Your task to perform on an android device: Clear the shopping cart on walmart.com. Search for usb-b on walmart.com, select the first entry, add it to the cart, then select checkout. Image 0: 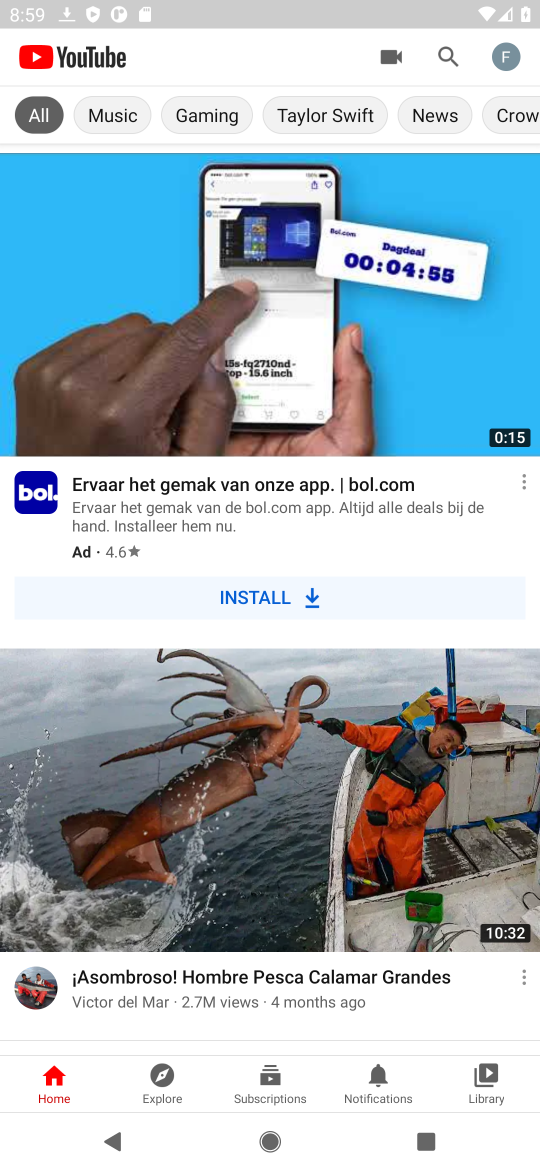
Step 0: press home button
Your task to perform on an android device: Clear the shopping cart on walmart.com. Search for usb-b on walmart.com, select the first entry, add it to the cart, then select checkout. Image 1: 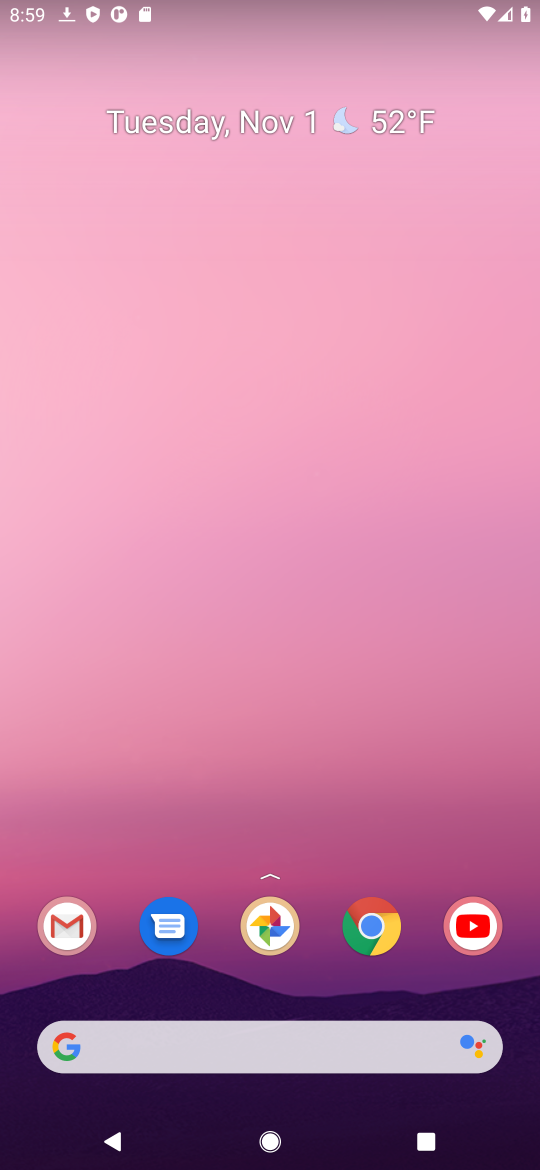
Step 1: click (356, 950)
Your task to perform on an android device: Clear the shopping cart on walmart.com. Search for usb-b on walmart.com, select the first entry, add it to the cart, then select checkout. Image 2: 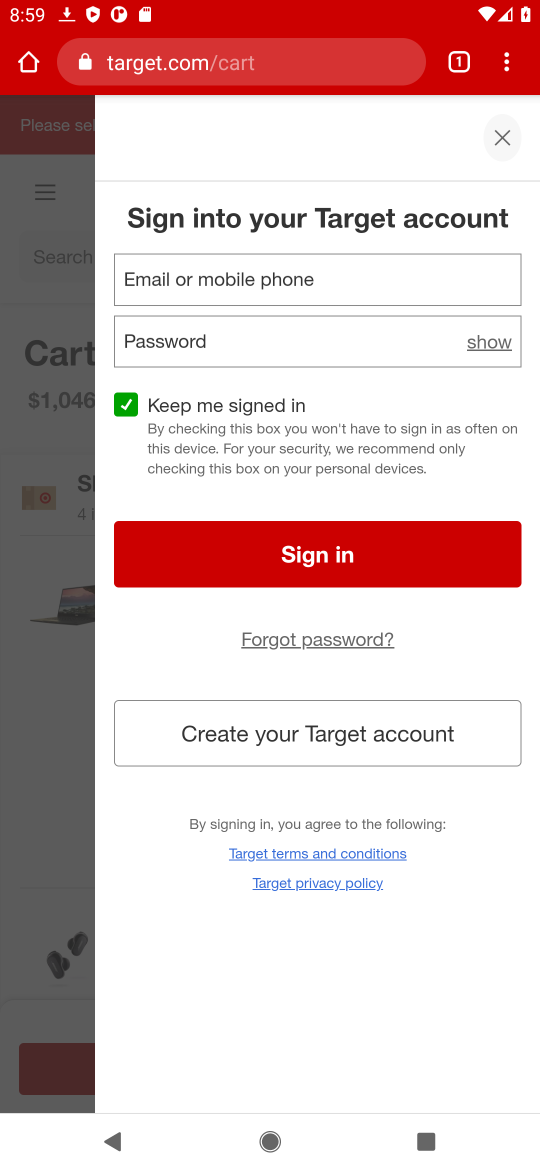
Step 2: click (209, 65)
Your task to perform on an android device: Clear the shopping cart on walmart.com. Search for usb-b on walmart.com, select the first entry, add it to the cart, then select checkout. Image 3: 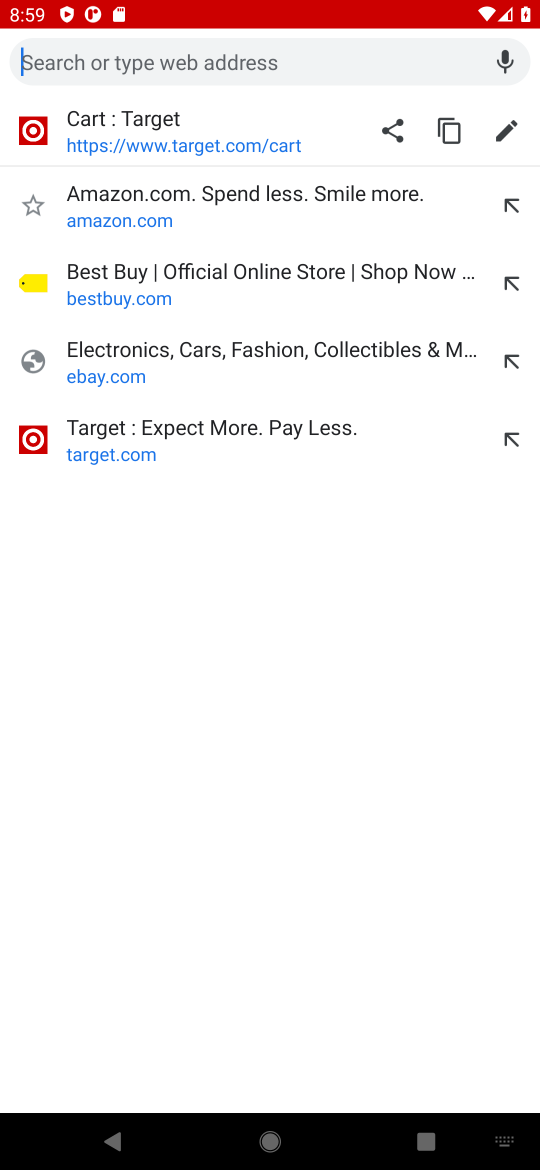
Step 3: type "walmart.com"
Your task to perform on an android device: Clear the shopping cart on walmart.com. Search for usb-b on walmart.com, select the first entry, add it to the cart, then select checkout. Image 4: 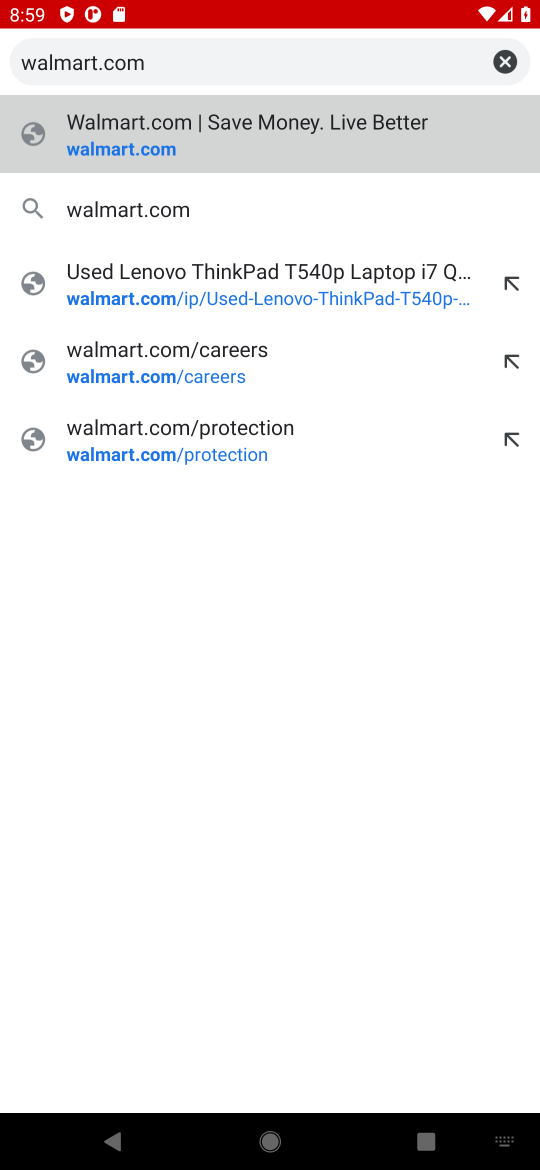
Step 4: click (198, 131)
Your task to perform on an android device: Clear the shopping cart on walmart.com. Search for usb-b on walmart.com, select the first entry, add it to the cart, then select checkout. Image 5: 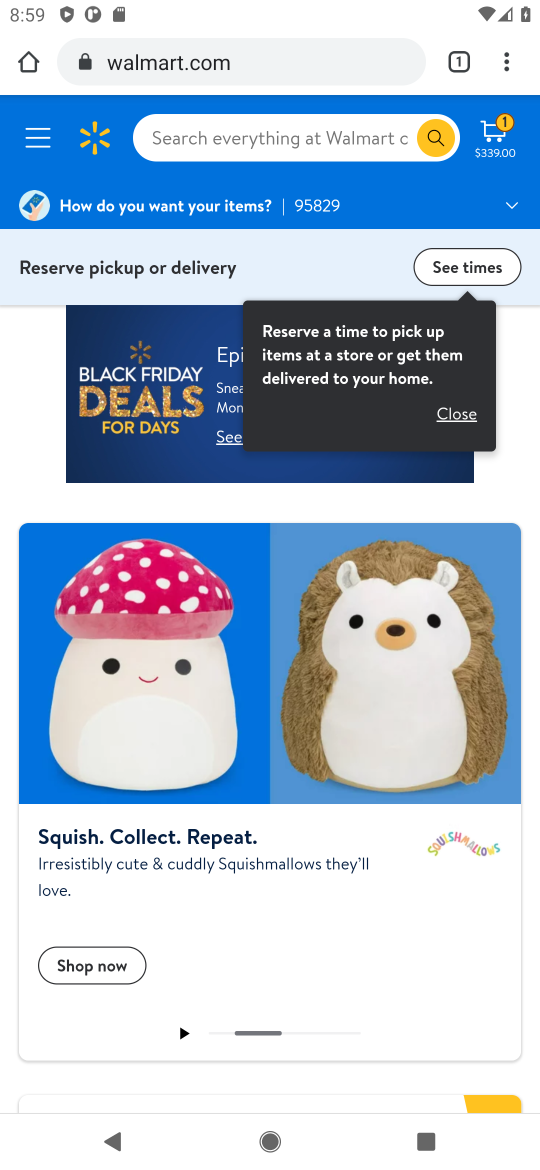
Step 5: click (202, 132)
Your task to perform on an android device: Clear the shopping cart on walmart.com. Search for usb-b on walmart.com, select the first entry, add it to the cart, then select checkout. Image 6: 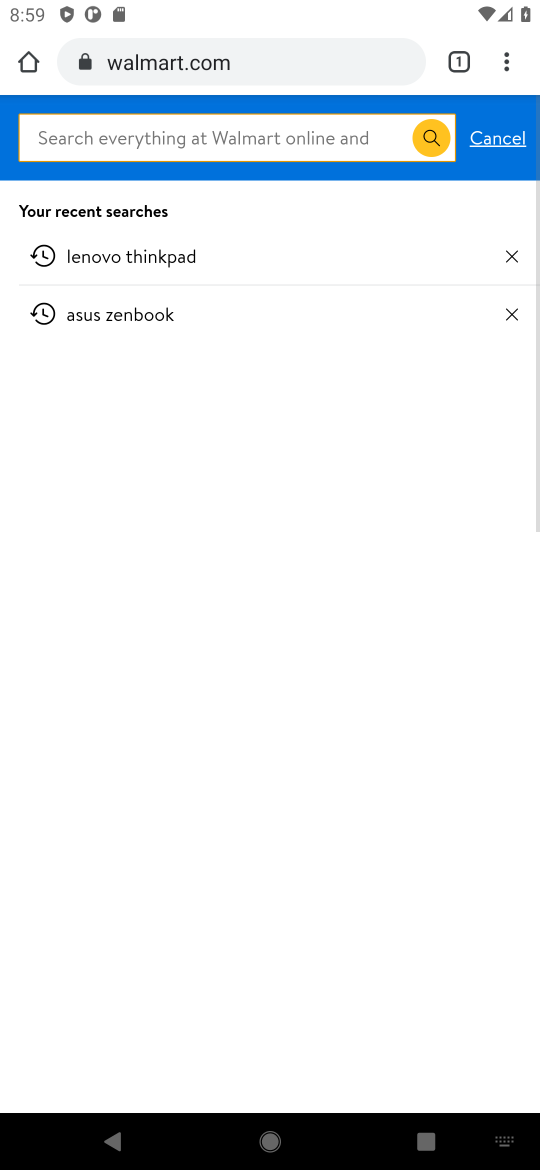
Step 6: click (483, 132)
Your task to perform on an android device: Clear the shopping cart on walmart.com. Search for usb-b on walmart.com, select the first entry, add it to the cart, then select checkout. Image 7: 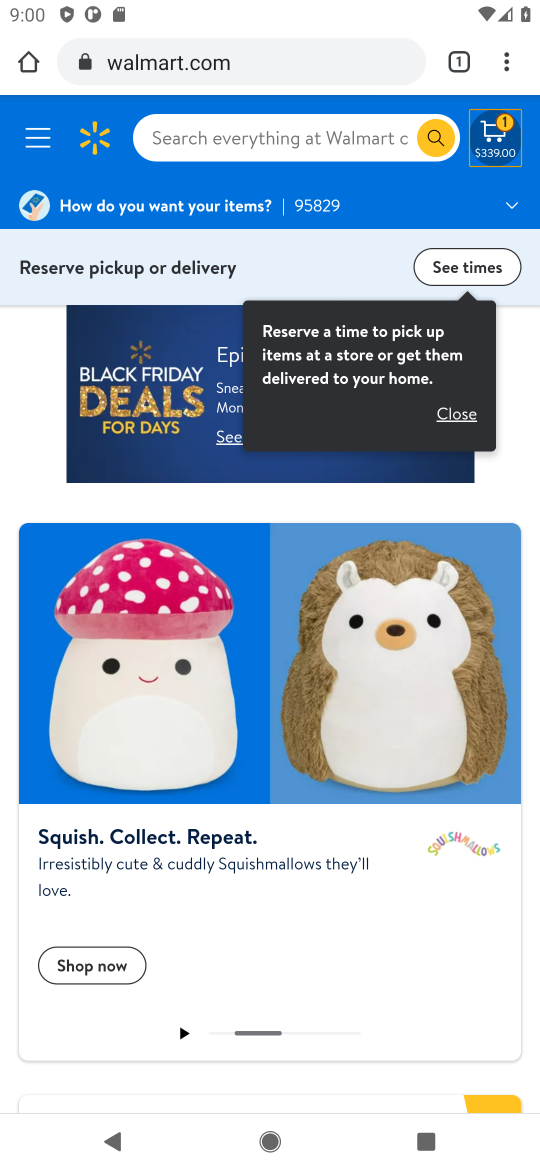
Step 7: type "usb - b"
Your task to perform on an android device: Clear the shopping cart on walmart.com. Search for usb-b on walmart.com, select the first entry, add it to the cart, then select checkout. Image 8: 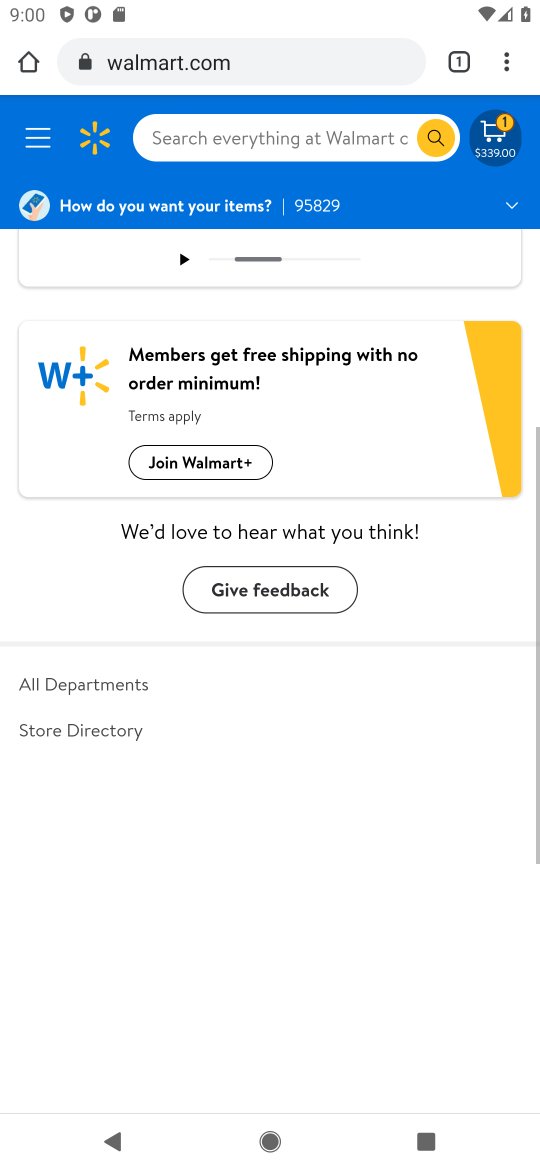
Step 8: type ""
Your task to perform on an android device: Clear the shopping cart on walmart.com. Search for usb-b on walmart.com, select the first entry, add it to the cart, then select checkout. Image 9: 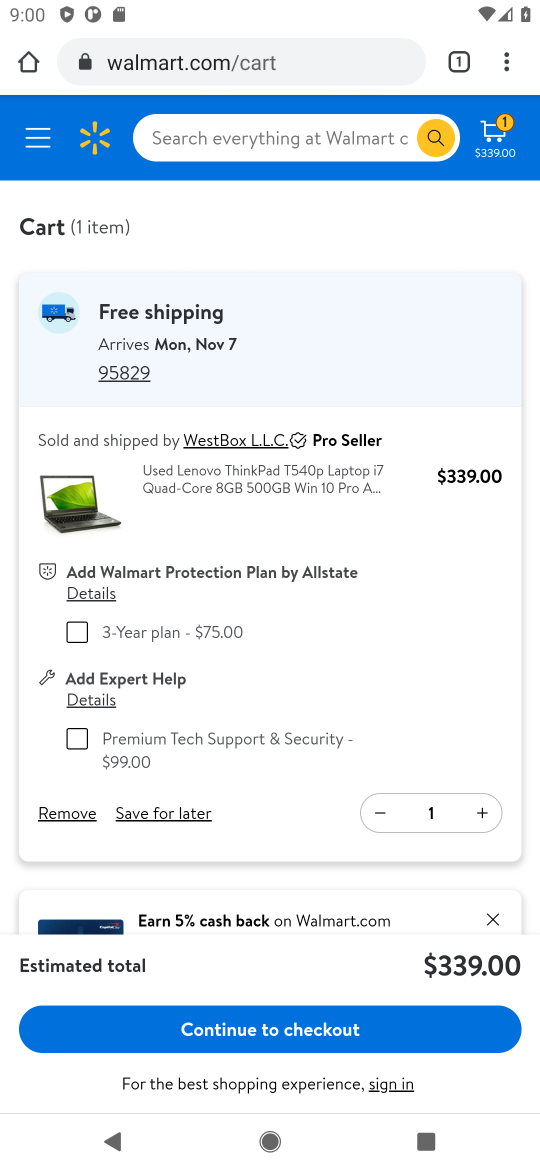
Step 9: click (259, 129)
Your task to perform on an android device: Clear the shopping cart on walmart.com. Search for usb-b on walmart.com, select the first entry, add it to the cart, then select checkout. Image 10: 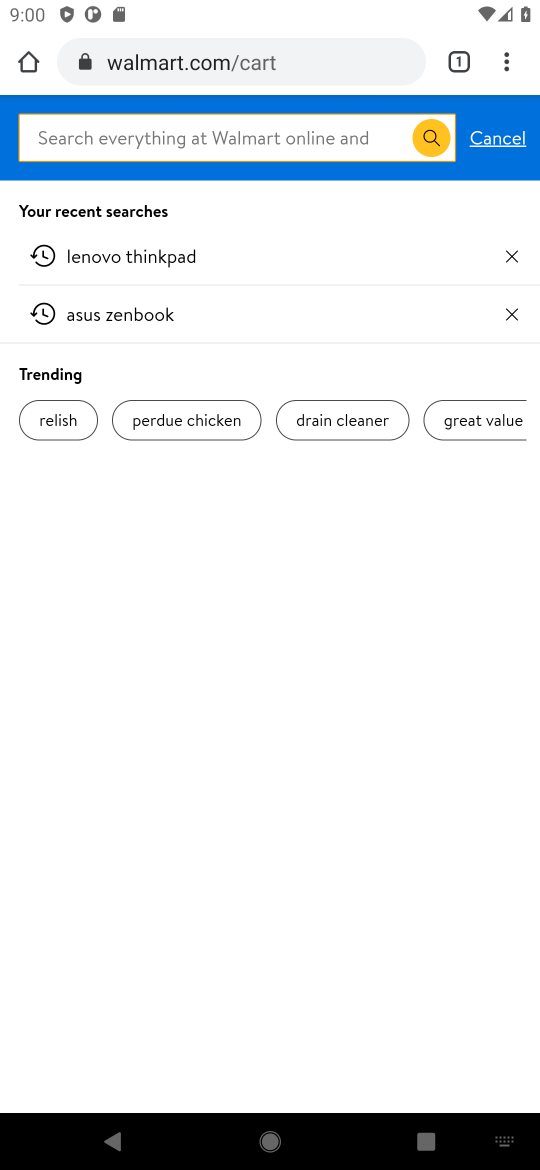
Step 10: type "usb b "
Your task to perform on an android device: Clear the shopping cart on walmart.com. Search for usb-b on walmart.com, select the first entry, add it to the cart, then select checkout. Image 11: 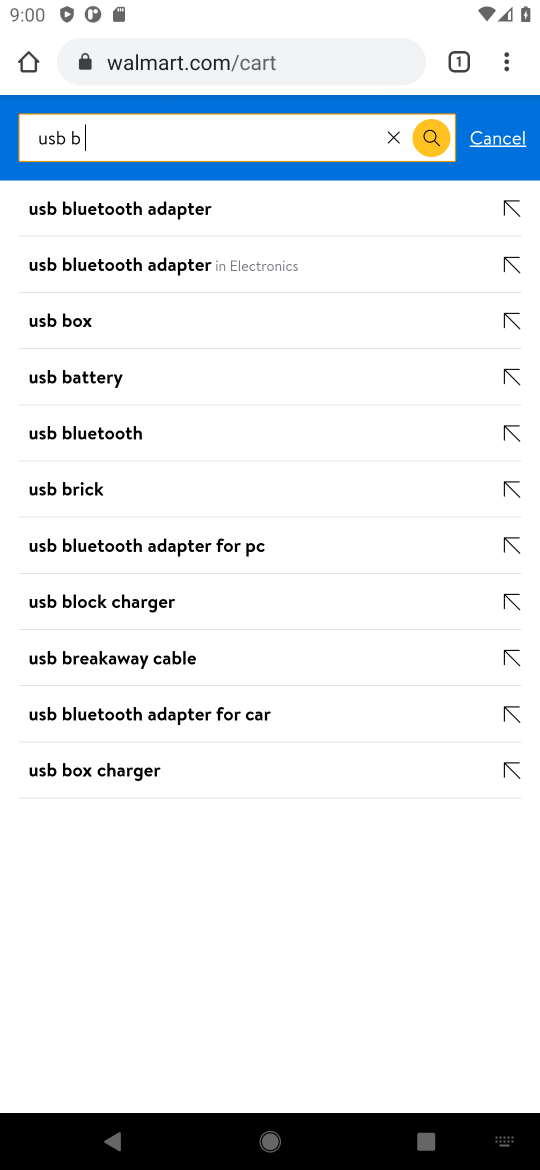
Step 11: click (416, 131)
Your task to perform on an android device: Clear the shopping cart on walmart.com. Search for usb-b on walmart.com, select the first entry, add it to the cart, then select checkout. Image 12: 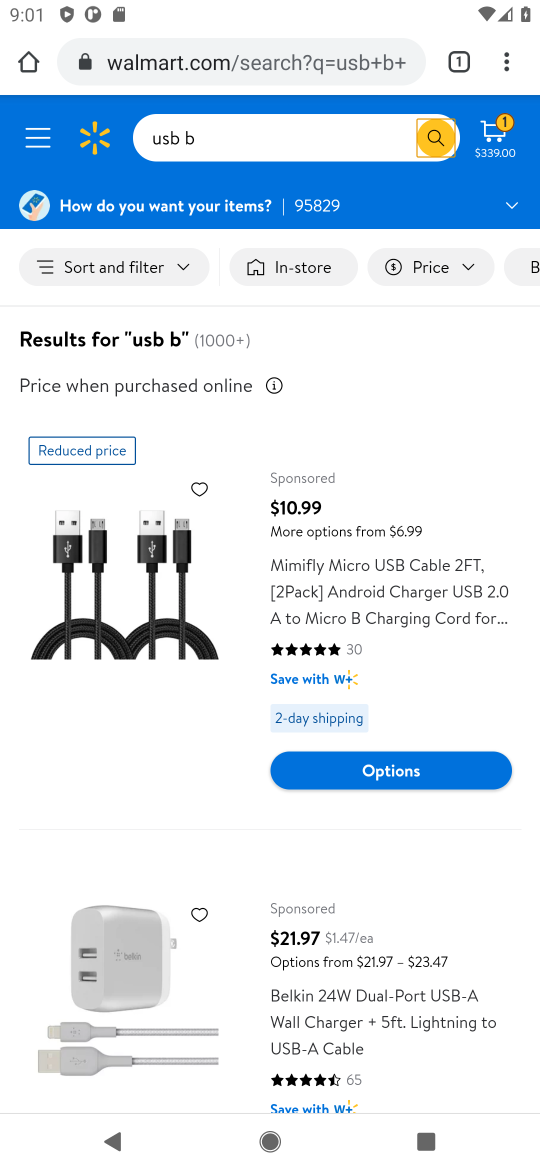
Step 12: drag from (466, 194) to (407, 322)
Your task to perform on an android device: Clear the shopping cart on walmart.com. Search for usb-b on walmart.com, select the first entry, add it to the cart, then select checkout. Image 13: 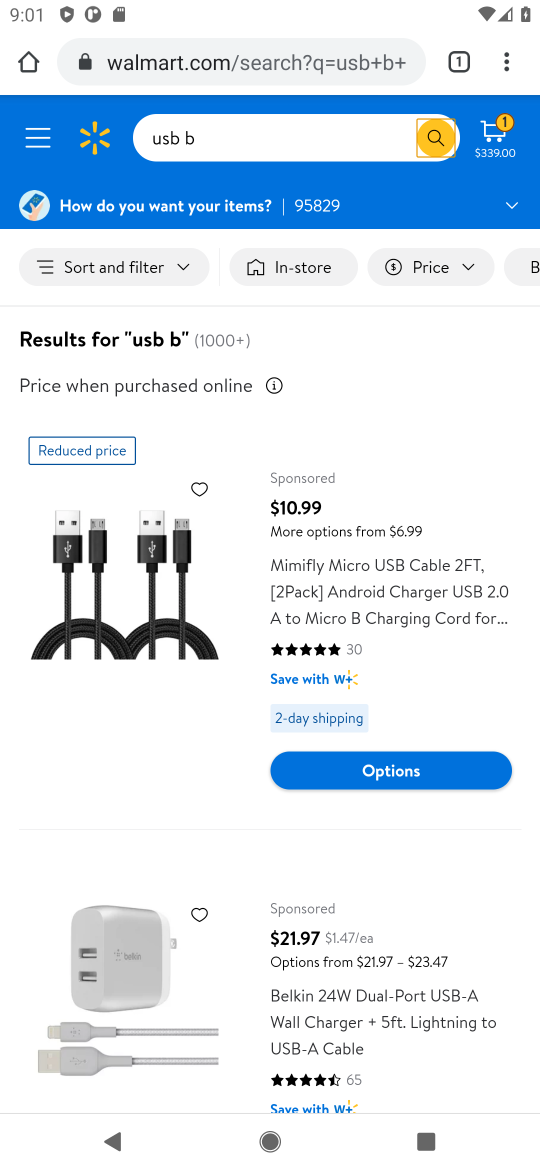
Step 13: drag from (171, 784) to (150, 439)
Your task to perform on an android device: Clear the shopping cart on walmart.com. Search for usb-b on walmart.com, select the first entry, add it to the cart, then select checkout. Image 14: 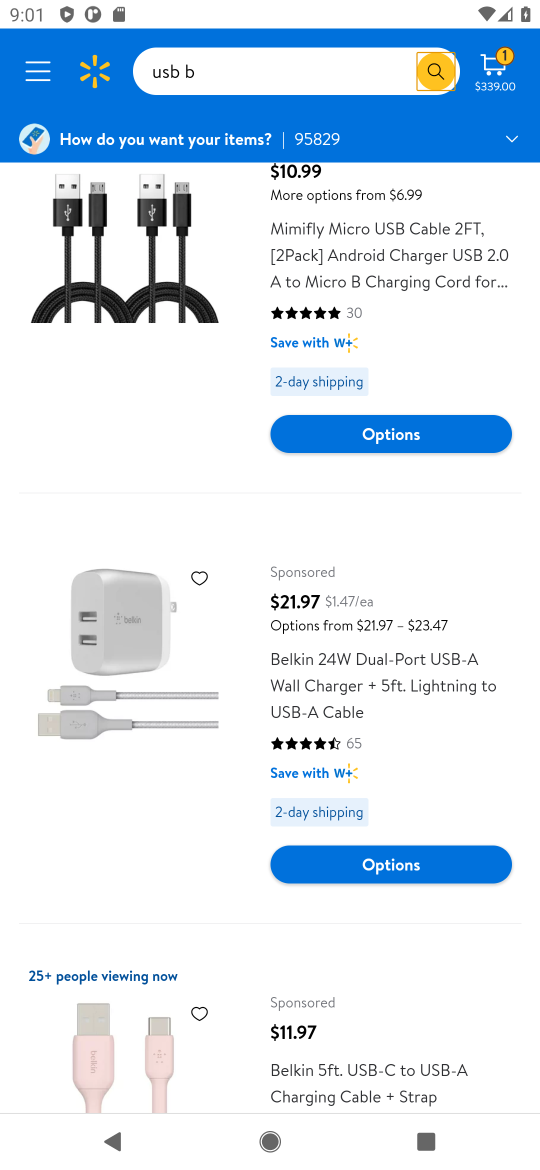
Step 14: drag from (230, 975) to (206, 634)
Your task to perform on an android device: Clear the shopping cart on walmart.com. Search for usb-b on walmart.com, select the first entry, add it to the cart, then select checkout. Image 15: 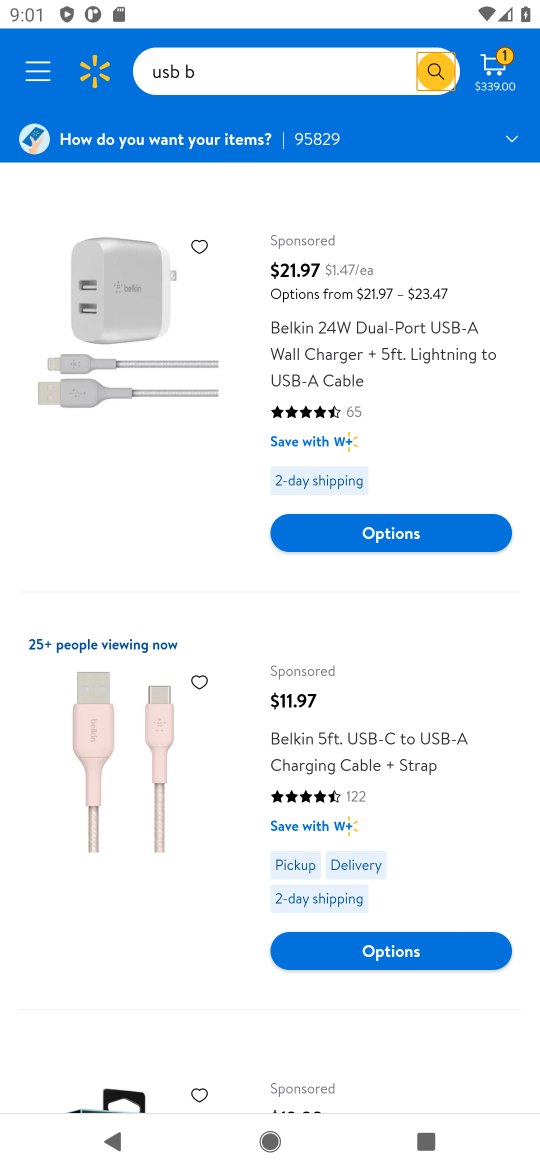
Step 15: drag from (290, 878) to (345, 454)
Your task to perform on an android device: Clear the shopping cart on walmart.com. Search for usb-b on walmart.com, select the first entry, add it to the cart, then select checkout. Image 16: 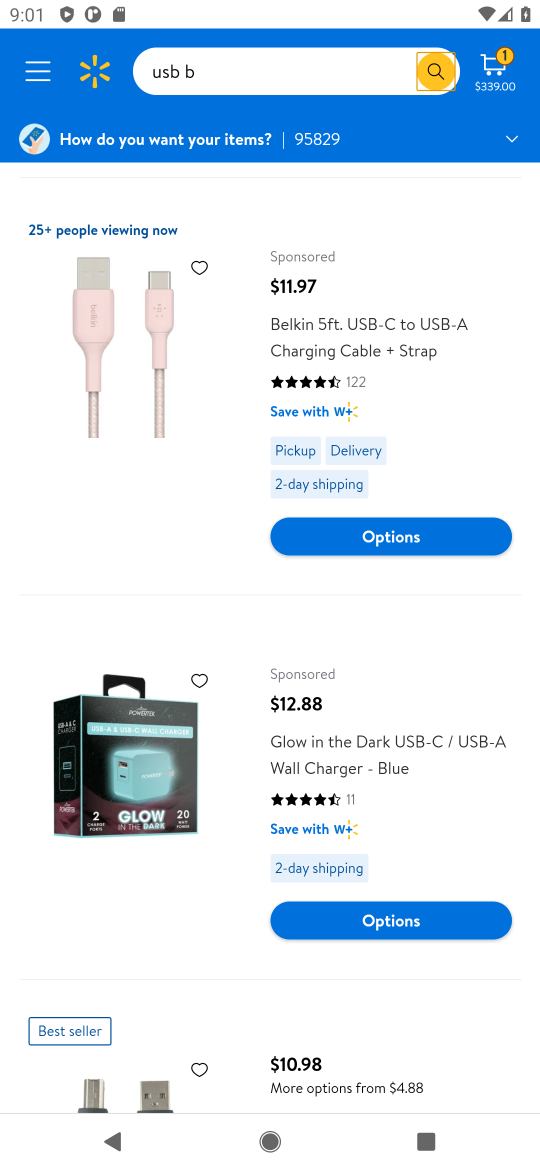
Step 16: drag from (188, 863) to (253, 449)
Your task to perform on an android device: Clear the shopping cart on walmart.com. Search for usb-b on walmart.com, select the first entry, add it to the cart, then select checkout. Image 17: 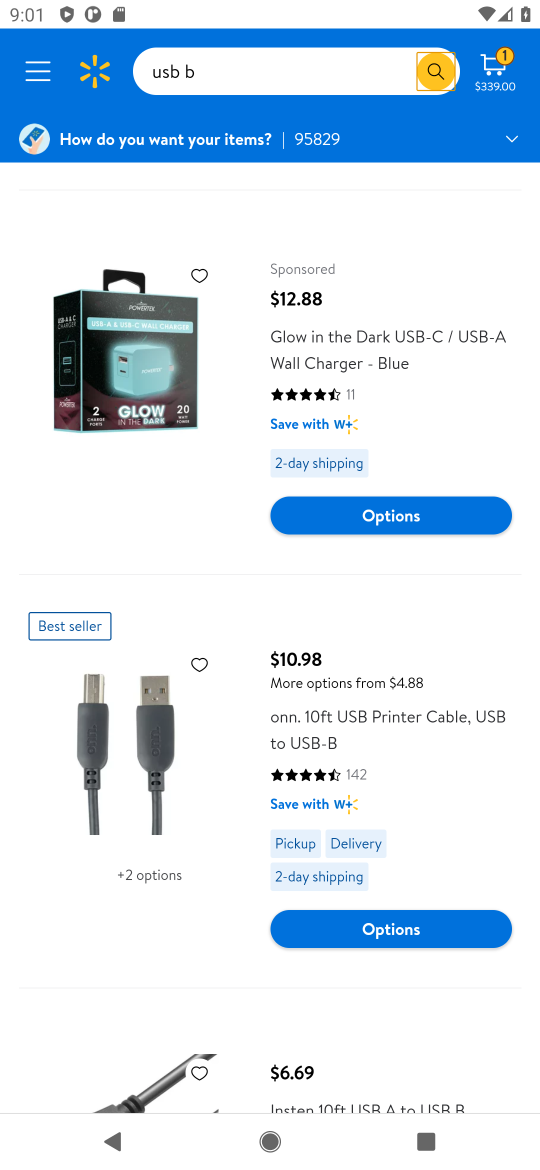
Step 17: click (301, 708)
Your task to perform on an android device: Clear the shopping cart on walmart.com. Search for usb-b on walmart.com, select the first entry, add it to the cart, then select checkout. Image 18: 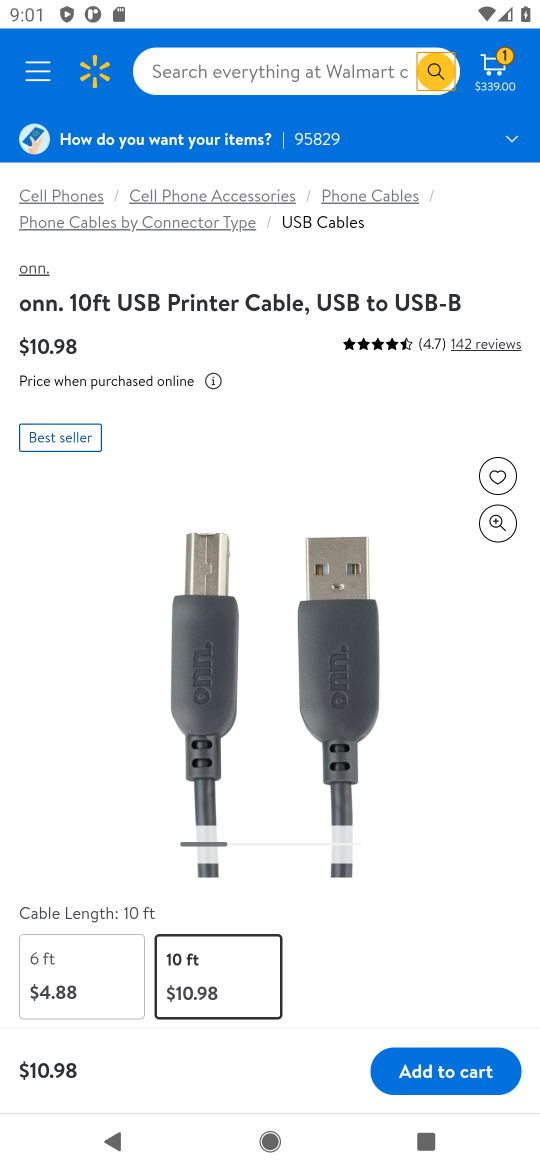
Step 18: drag from (287, 794) to (258, 527)
Your task to perform on an android device: Clear the shopping cart on walmart.com. Search for usb-b on walmart.com, select the first entry, add it to the cart, then select checkout. Image 19: 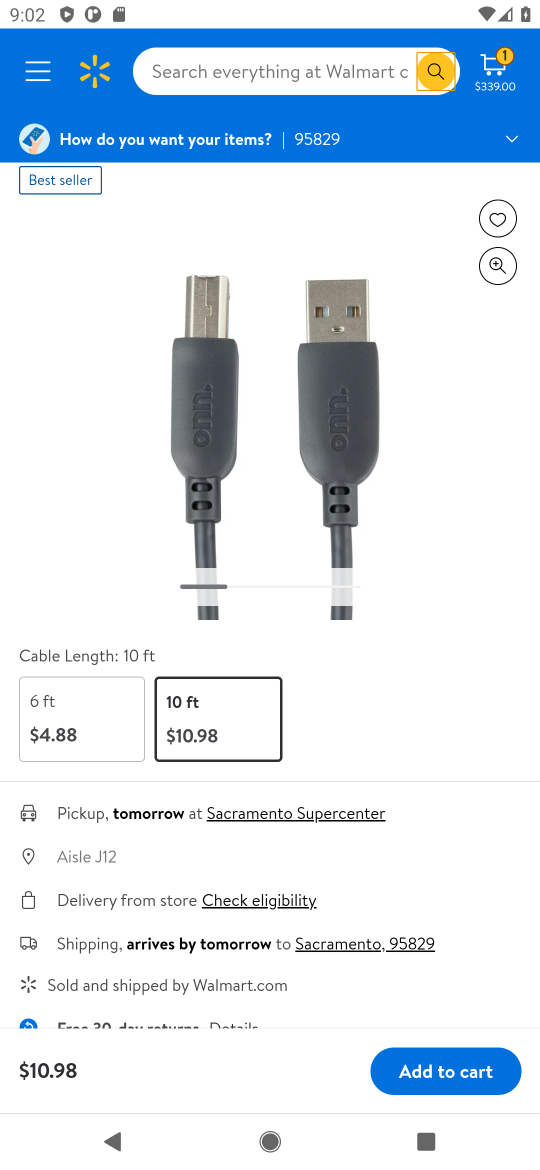
Step 19: click (468, 1077)
Your task to perform on an android device: Clear the shopping cart on walmart.com. Search for usb-b on walmart.com, select the first entry, add it to the cart, then select checkout. Image 20: 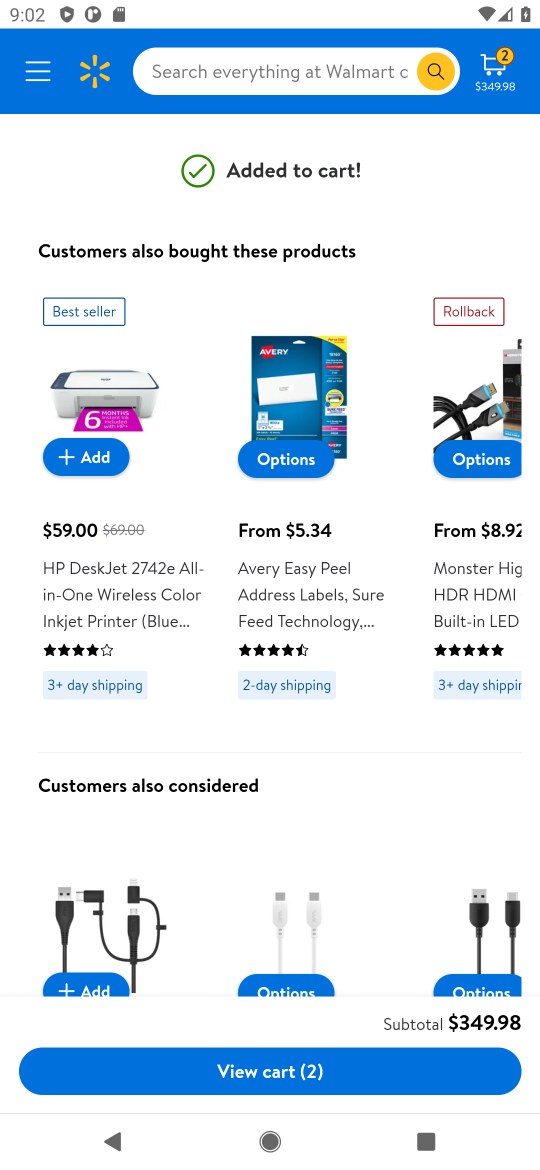
Step 20: click (237, 1075)
Your task to perform on an android device: Clear the shopping cart on walmart.com. Search for usb-b on walmart.com, select the first entry, add it to the cart, then select checkout. Image 21: 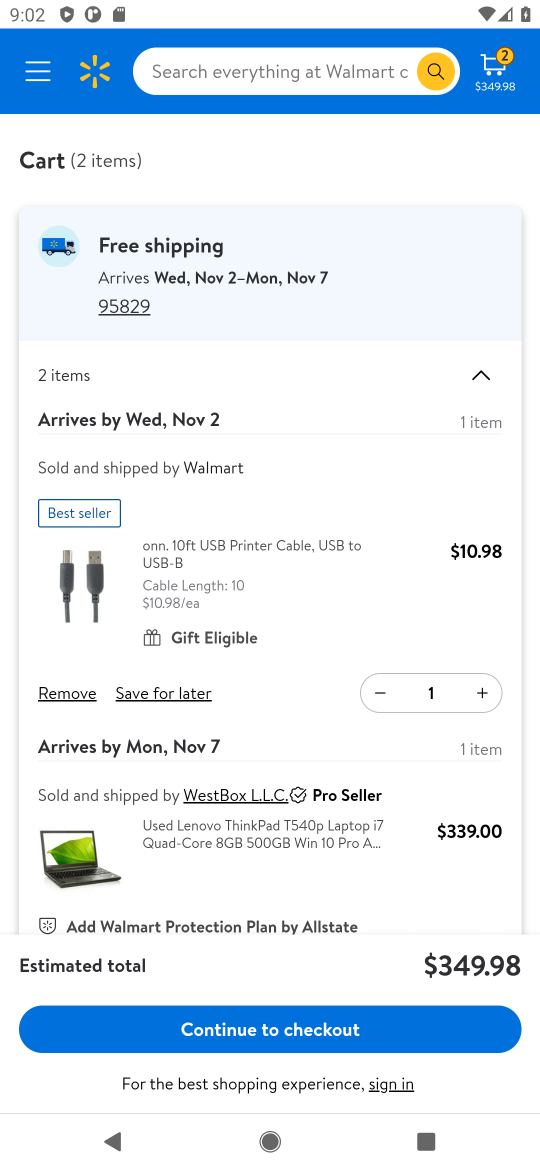
Step 21: drag from (257, 884) to (253, 545)
Your task to perform on an android device: Clear the shopping cart on walmart.com. Search for usb-b on walmart.com, select the first entry, add it to the cart, then select checkout. Image 22: 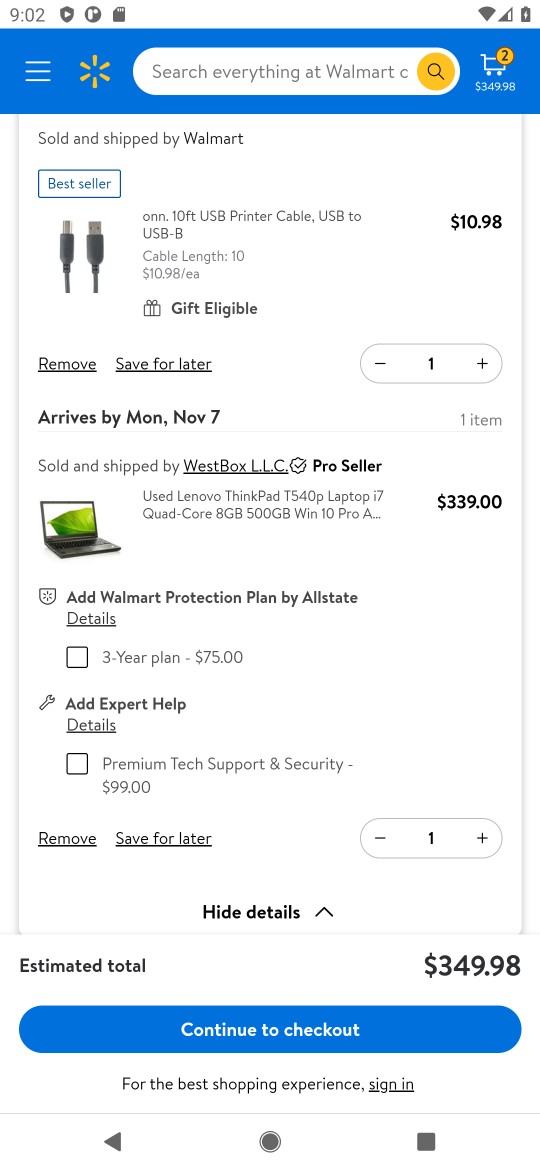
Step 22: click (51, 841)
Your task to perform on an android device: Clear the shopping cart on walmart.com. Search for usb-b on walmart.com, select the first entry, add it to the cart, then select checkout. Image 23: 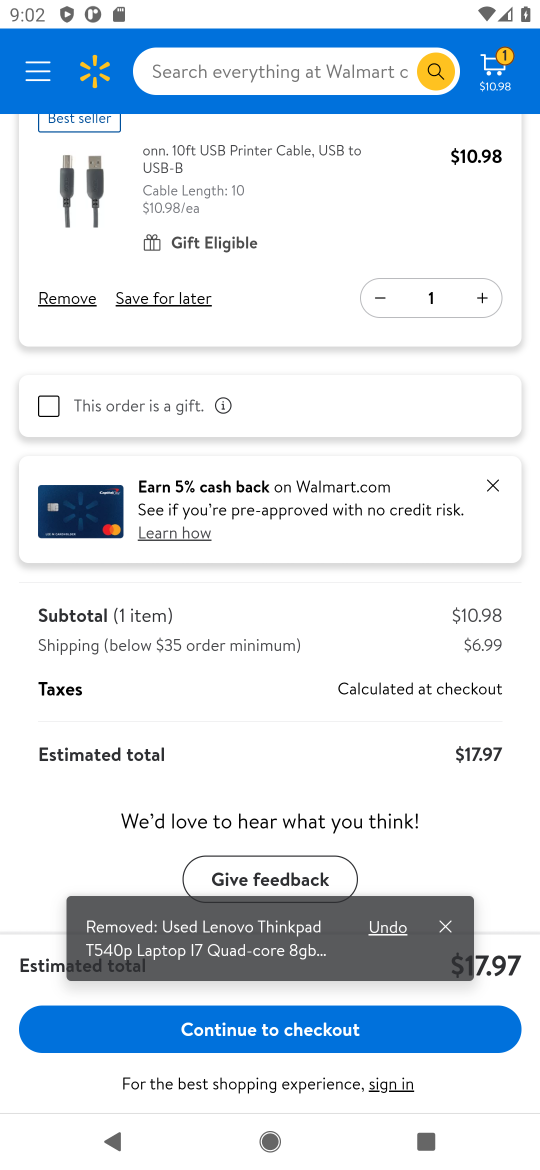
Step 23: drag from (304, 157) to (217, 574)
Your task to perform on an android device: Clear the shopping cart on walmart.com. Search for usb-b on walmart.com, select the first entry, add it to the cart, then select checkout. Image 24: 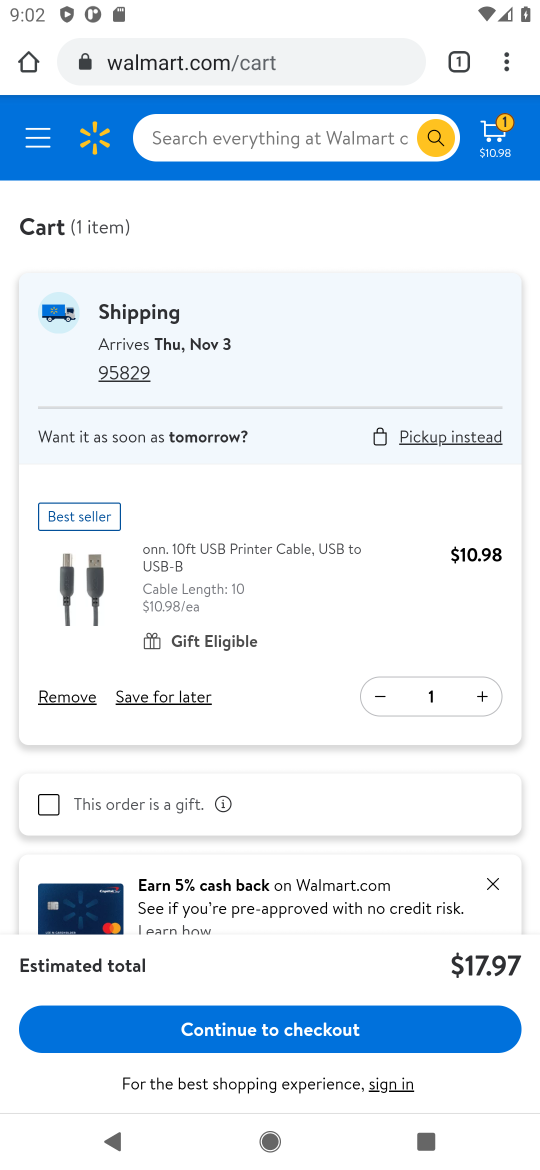
Step 24: click (279, 1035)
Your task to perform on an android device: Clear the shopping cart on walmart.com. Search for usb-b on walmart.com, select the first entry, add it to the cart, then select checkout. Image 25: 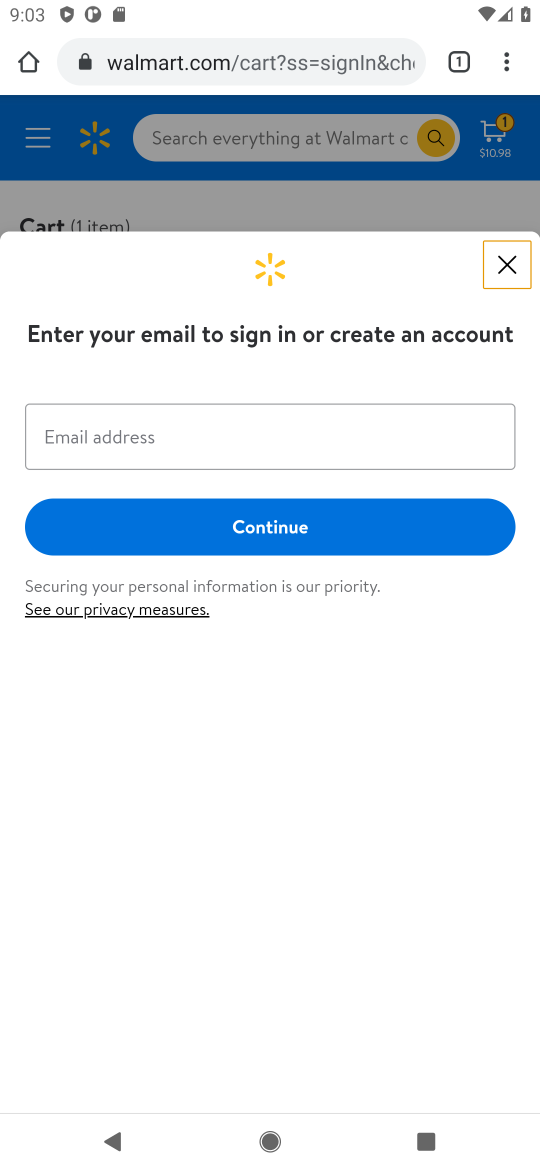
Step 25: task complete